Your task to perform on an android device: Add rayovac triple a to the cart on bestbuy Image 0: 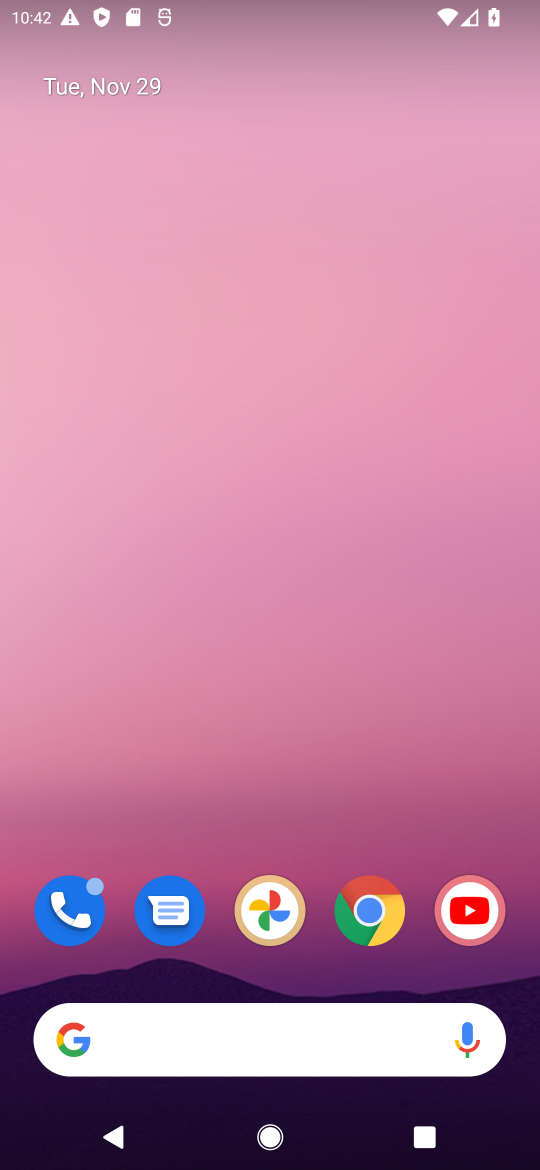
Step 0: click (351, 917)
Your task to perform on an android device: Add rayovac triple a to the cart on bestbuy Image 1: 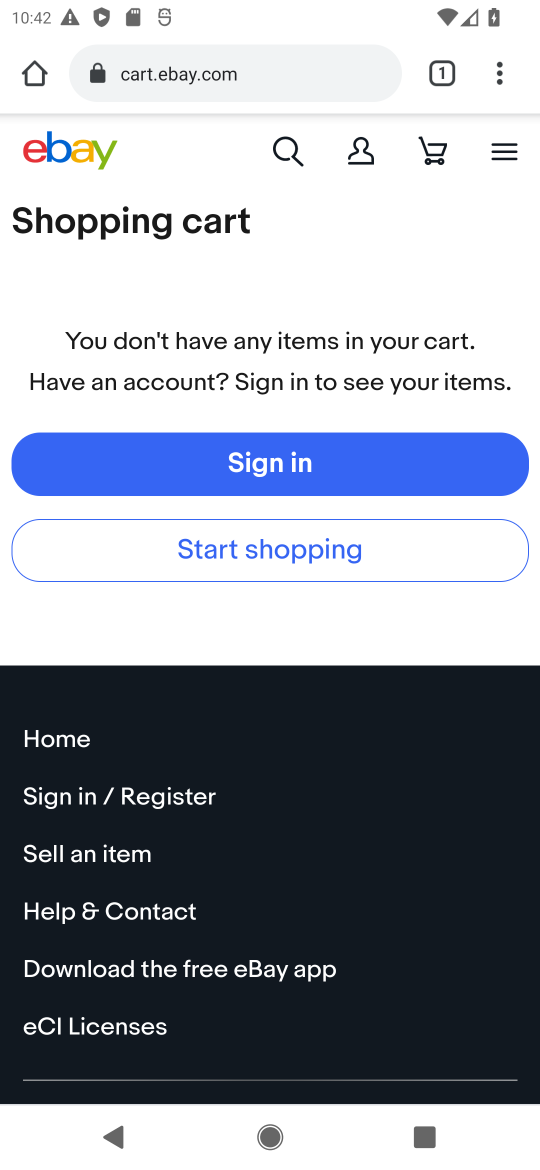
Step 1: click (216, 66)
Your task to perform on an android device: Add rayovac triple a to the cart on bestbuy Image 2: 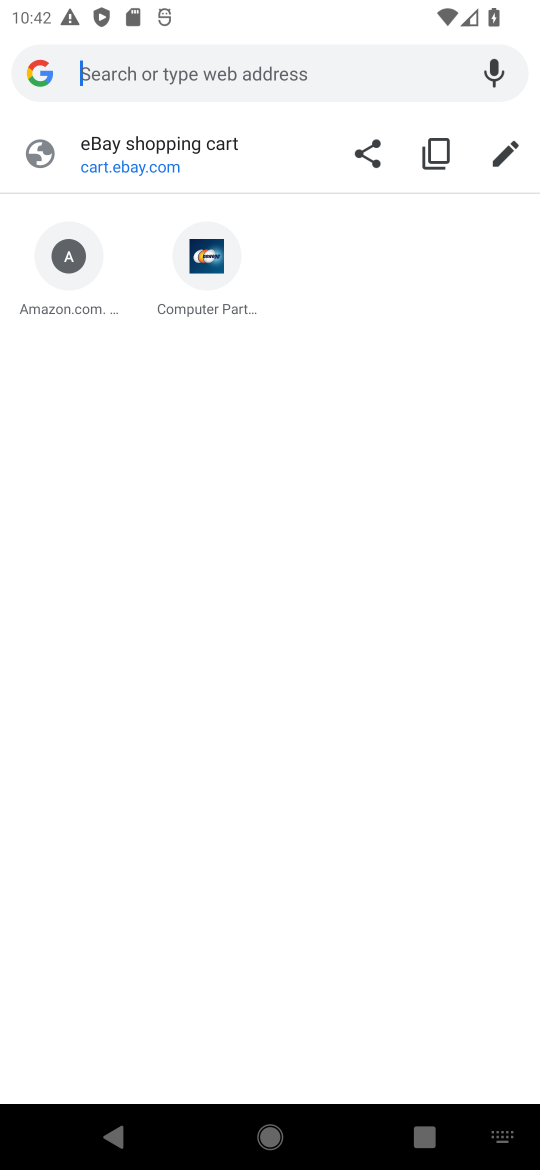
Step 2: type "bestbuy.com"
Your task to perform on an android device: Add rayovac triple a to the cart on bestbuy Image 3: 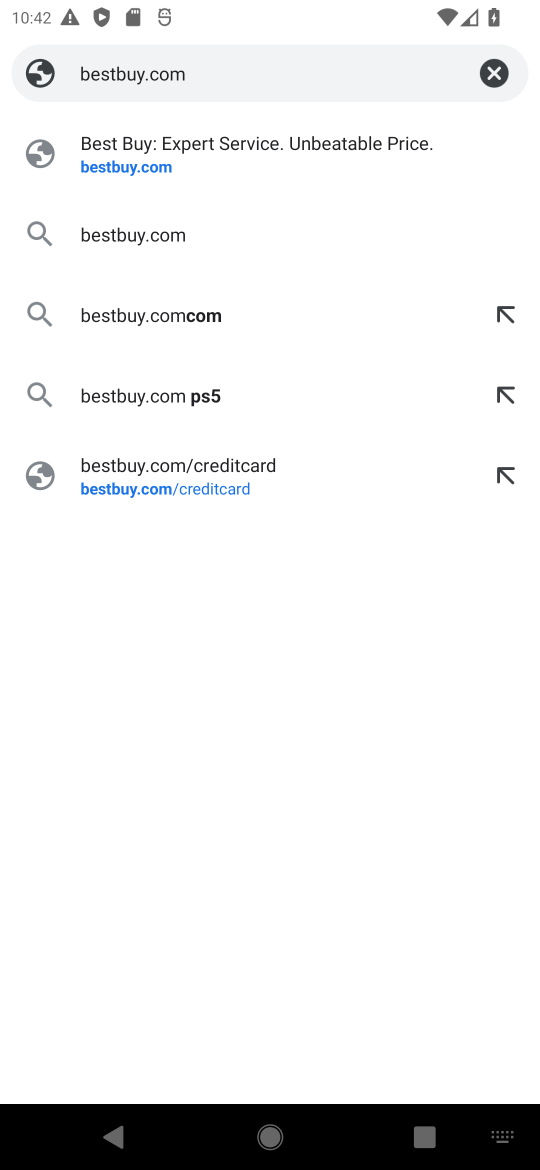
Step 3: click (139, 154)
Your task to perform on an android device: Add rayovac triple a to the cart on bestbuy Image 4: 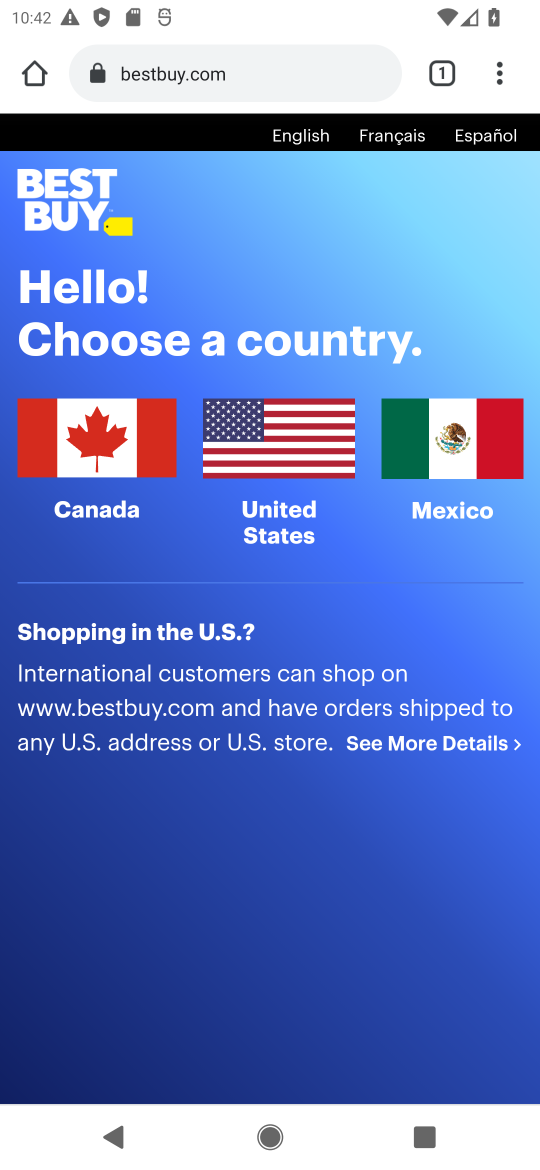
Step 4: click (275, 457)
Your task to perform on an android device: Add rayovac triple a to the cart on bestbuy Image 5: 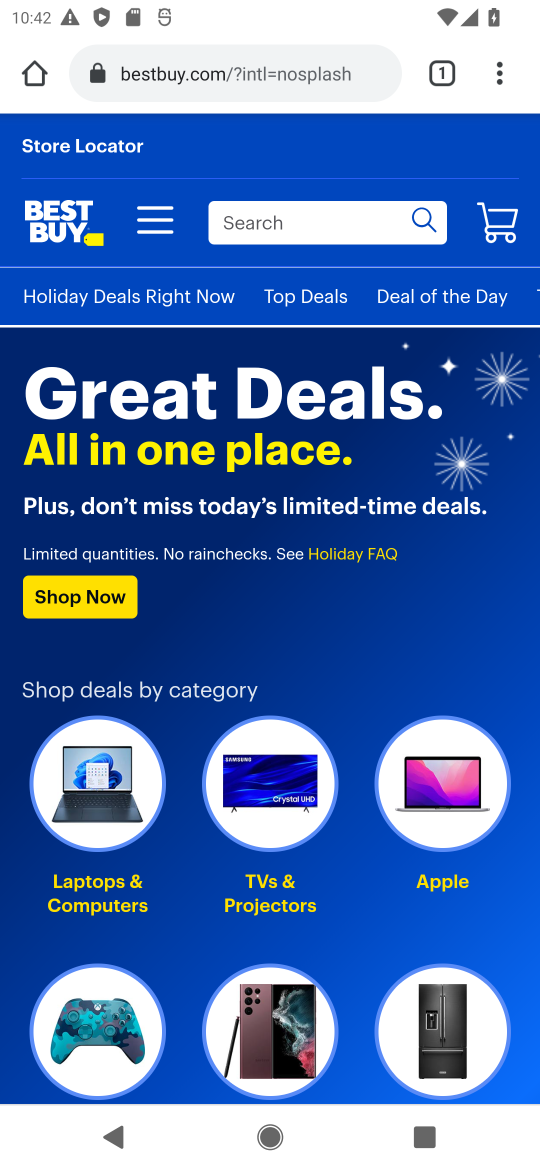
Step 5: click (276, 221)
Your task to perform on an android device: Add rayovac triple a to the cart on bestbuy Image 6: 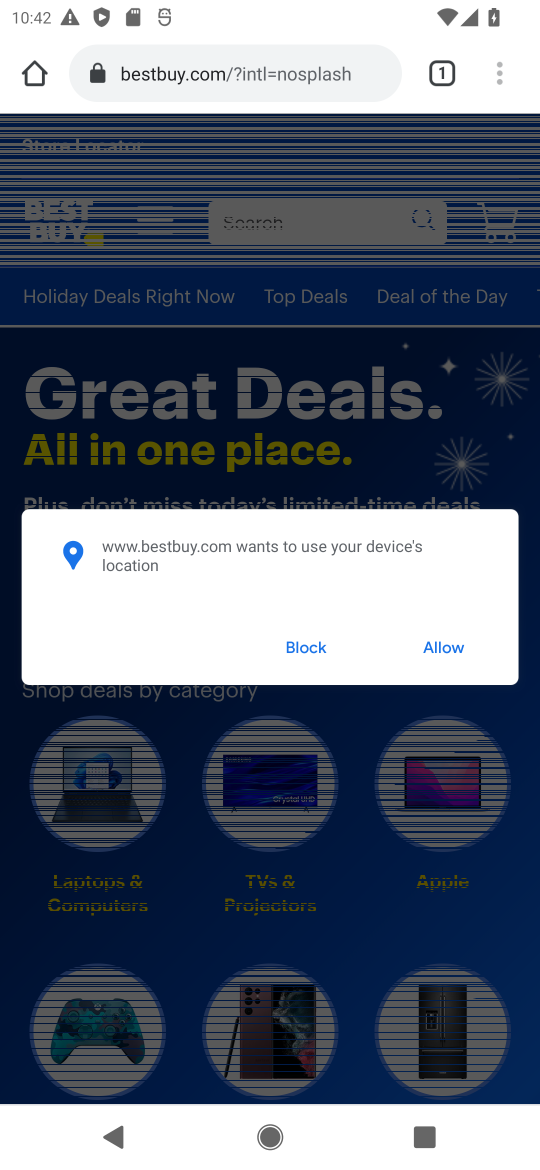
Step 6: click (290, 644)
Your task to perform on an android device: Add rayovac triple a to the cart on bestbuy Image 7: 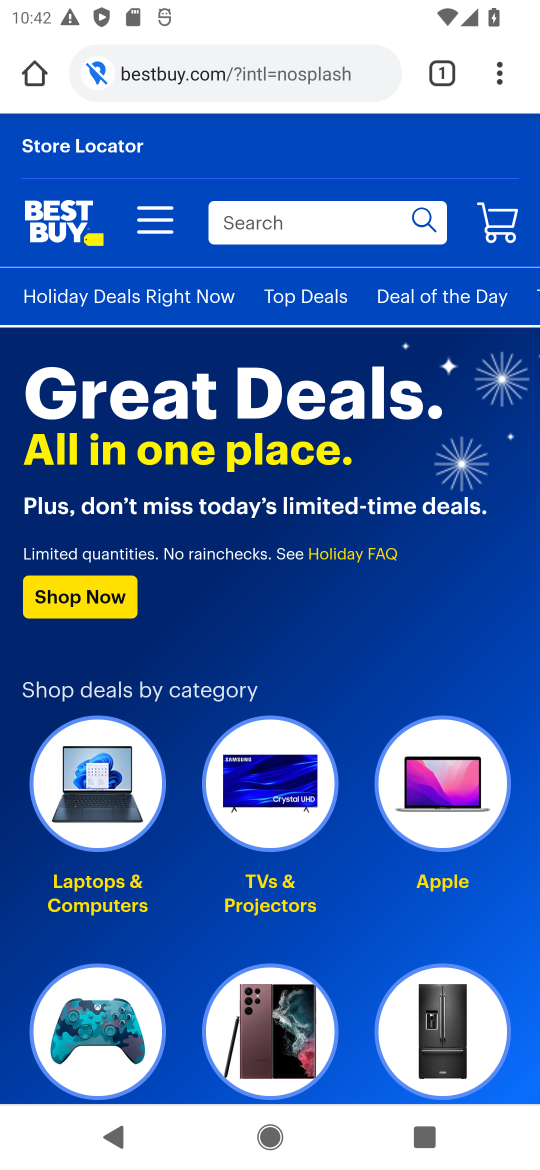
Step 7: click (246, 219)
Your task to perform on an android device: Add rayovac triple a to the cart on bestbuy Image 8: 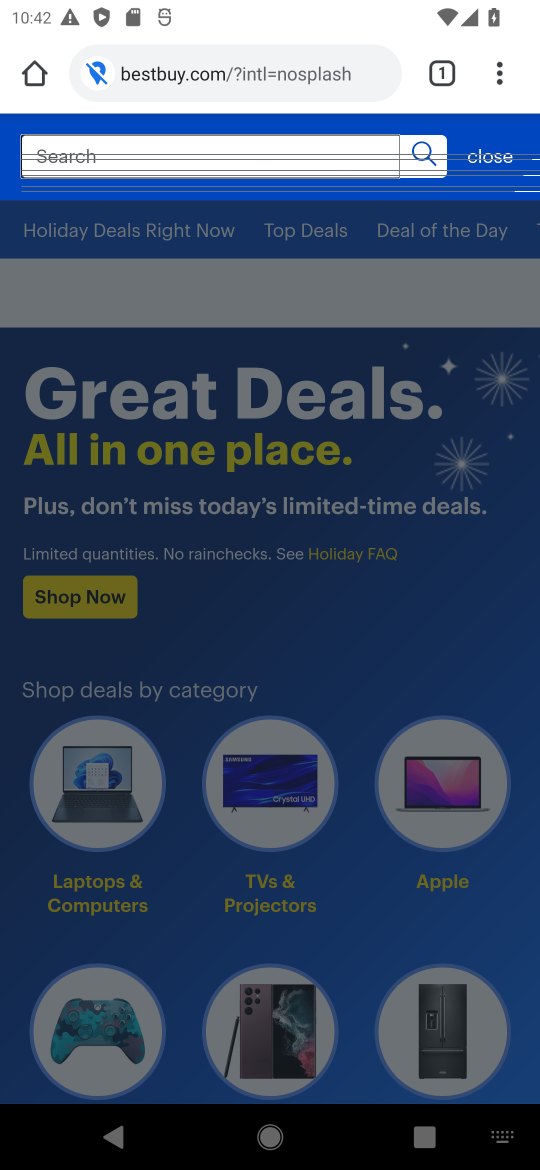
Step 8: type " rayovac triple a "
Your task to perform on an android device: Add rayovac triple a to the cart on bestbuy Image 9: 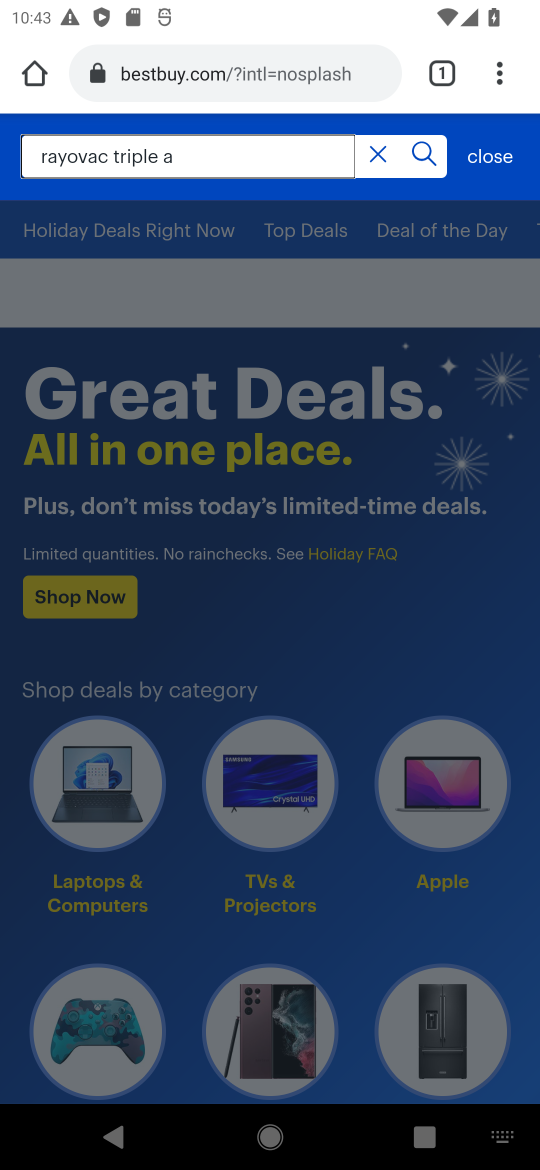
Step 9: click (421, 153)
Your task to perform on an android device: Add rayovac triple a to the cart on bestbuy Image 10: 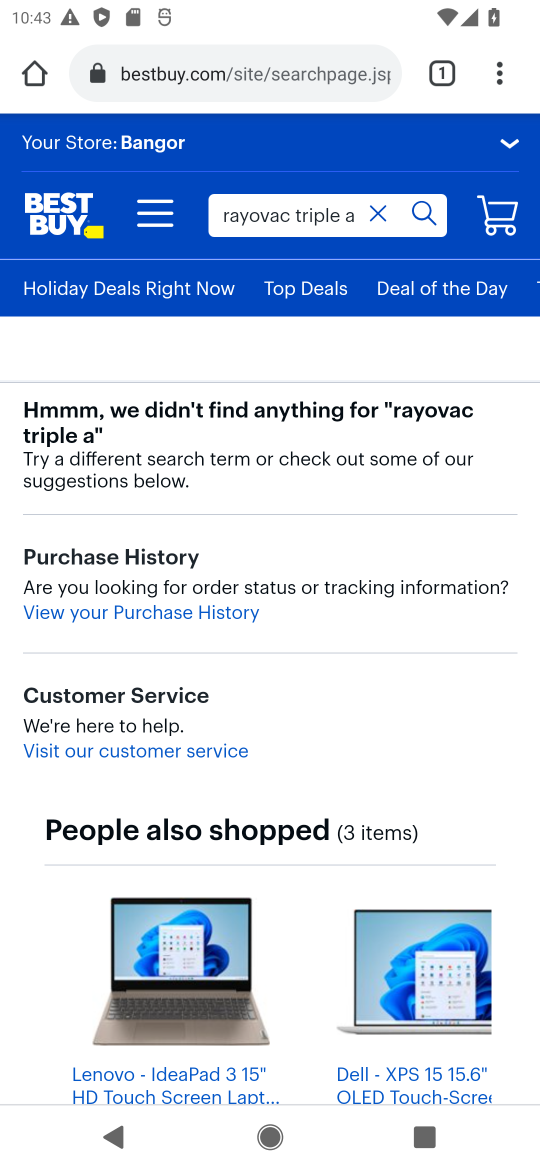
Step 10: task complete